Your task to perform on an android device: change timer sound Image 0: 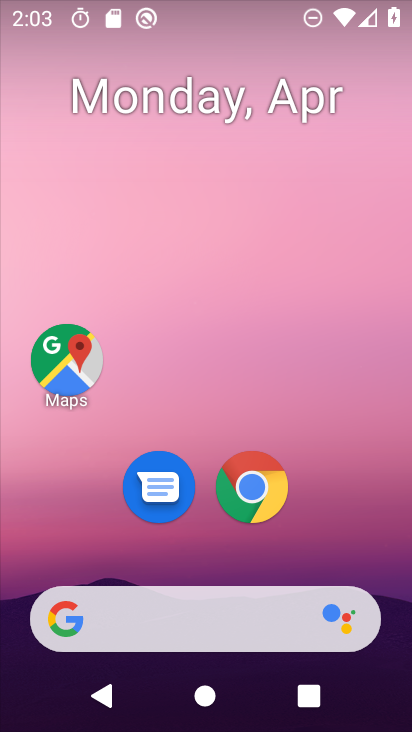
Step 0: drag from (289, 656) to (327, 163)
Your task to perform on an android device: change timer sound Image 1: 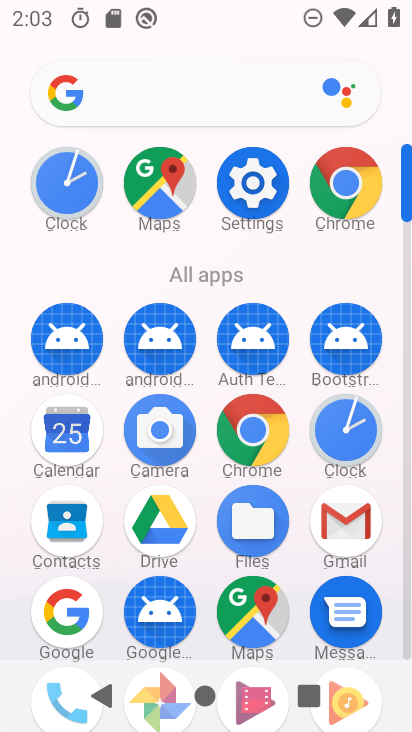
Step 1: click (348, 408)
Your task to perform on an android device: change timer sound Image 2: 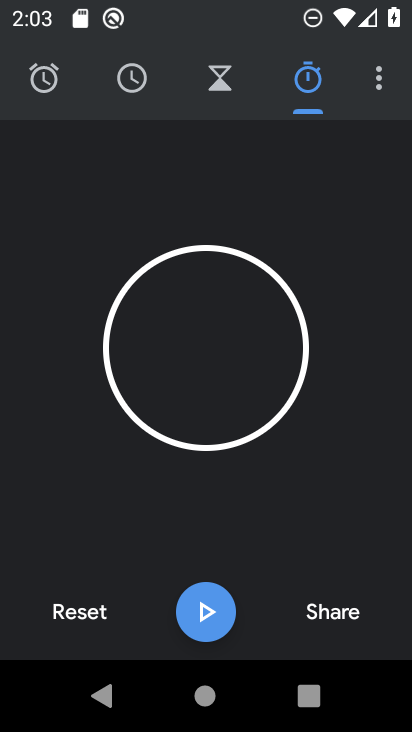
Step 2: click (370, 93)
Your task to perform on an android device: change timer sound Image 3: 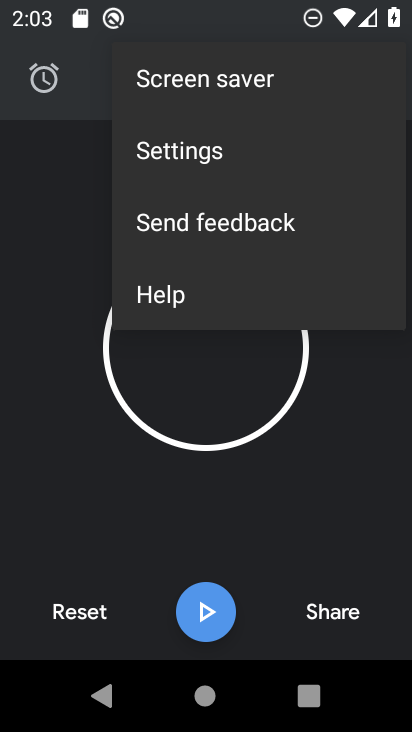
Step 3: click (189, 122)
Your task to perform on an android device: change timer sound Image 4: 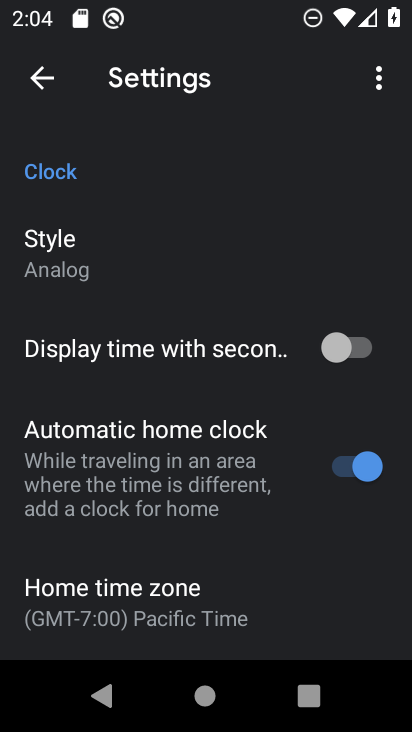
Step 4: drag from (167, 505) to (261, 187)
Your task to perform on an android device: change timer sound Image 5: 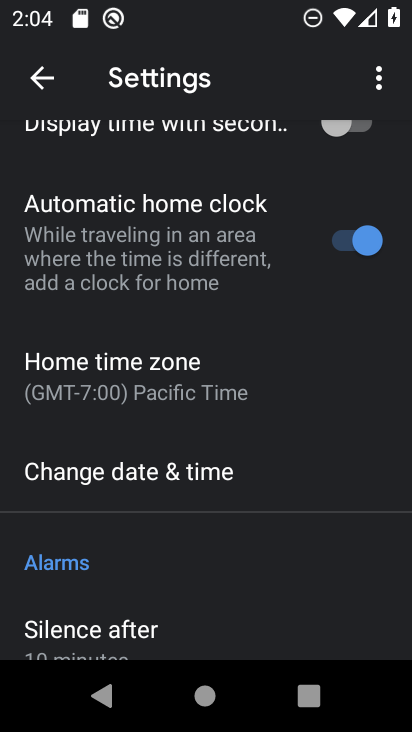
Step 5: drag from (152, 562) to (248, 162)
Your task to perform on an android device: change timer sound Image 6: 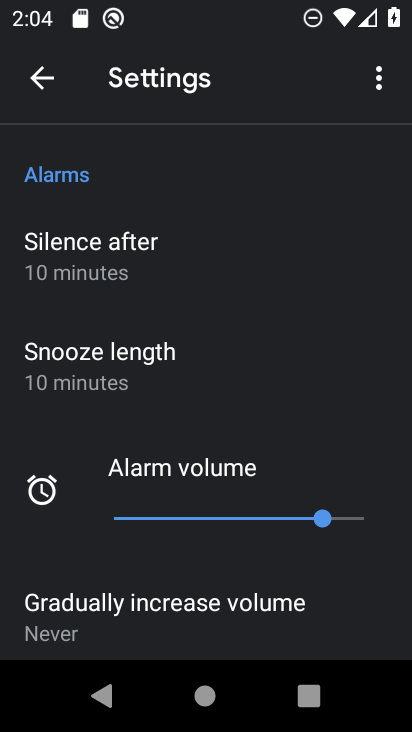
Step 6: drag from (156, 505) to (240, 236)
Your task to perform on an android device: change timer sound Image 7: 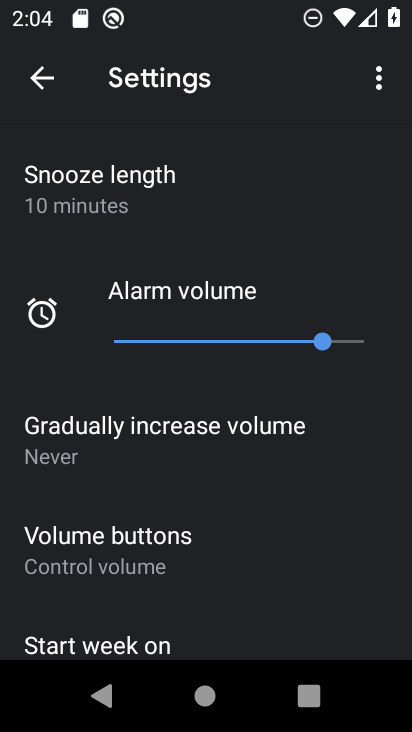
Step 7: drag from (130, 561) to (244, 213)
Your task to perform on an android device: change timer sound Image 8: 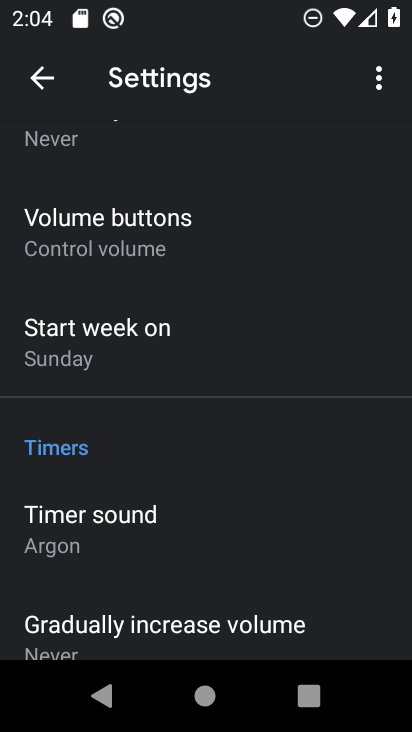
Step 8: click (190, 531)
Your task to perform on an android device: change timer sound Image 9: 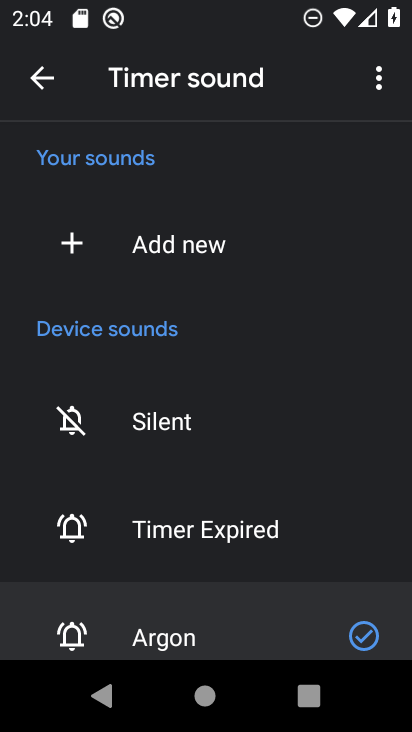
Step 9: drag from (260, 499) to (302, 368)
Your task to perform on an android device: change timer sound Image 10: 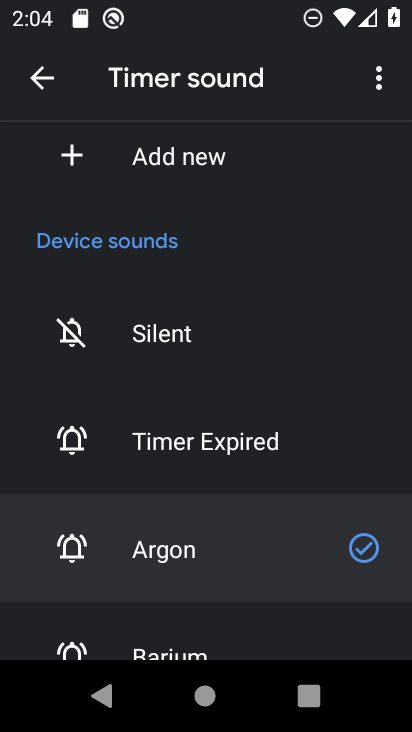
Step 10: click (181, 636)
Your task to perform on an android device: change timer sound Image 11: 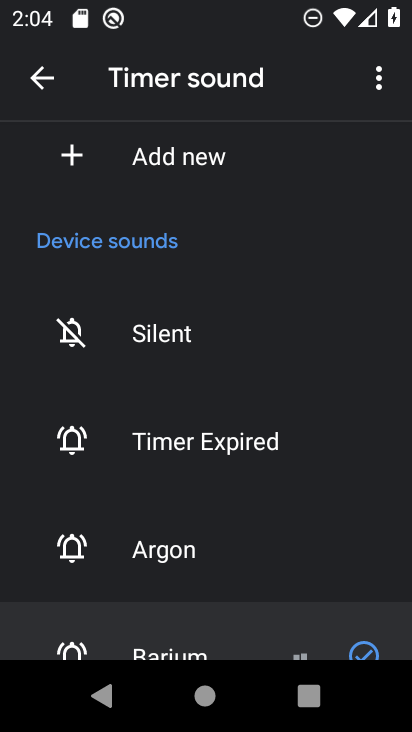
Step 11: task complete